Your task to perform on an android device: toggle show notifications on the lock screen Image 0: 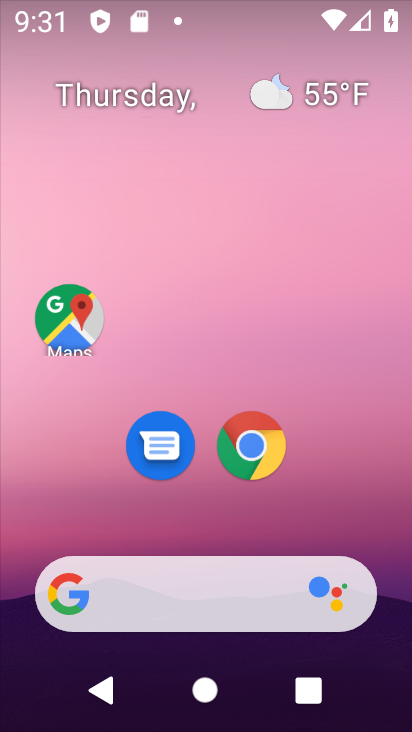
Step 0: drag from (194, 497) to (204, 88)
Your task to perform on an android device: toggle show notifications on the lock screen Image 1: 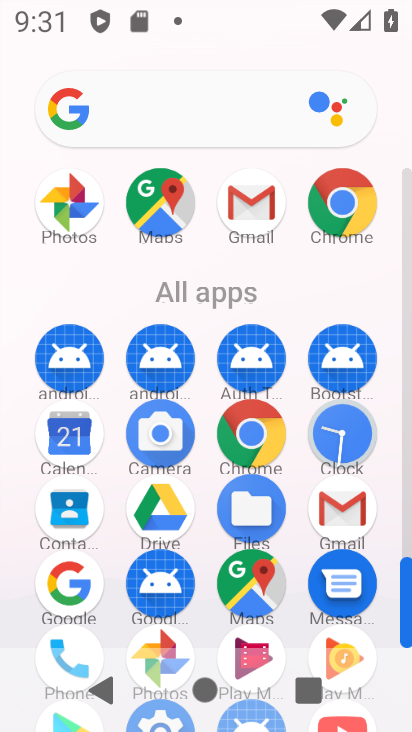
Step 1: drag from (209, 701) to (212, 420)
Your task to perform on an android device: toggle show notifications on the lock screen Image 2: 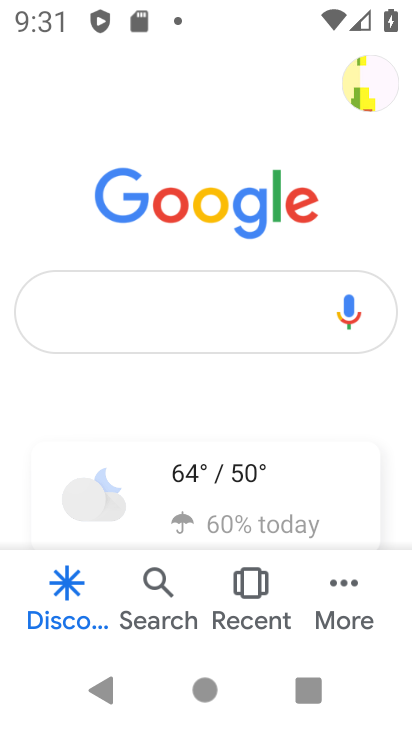
Step 2: click (107, 684)
Your task to perform on an android device: toggle show notifications on the lock screen Image 3: 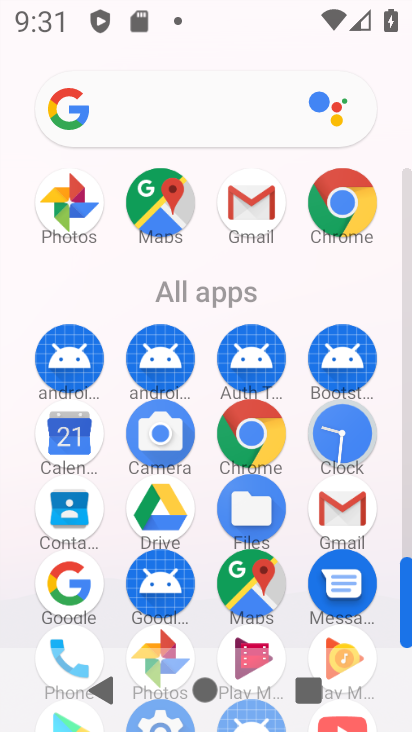
Step 3: drag from (212, 487) to (212, 222)
Your task to perform on an android device: toggle show notifications on the lock screen Image 4: 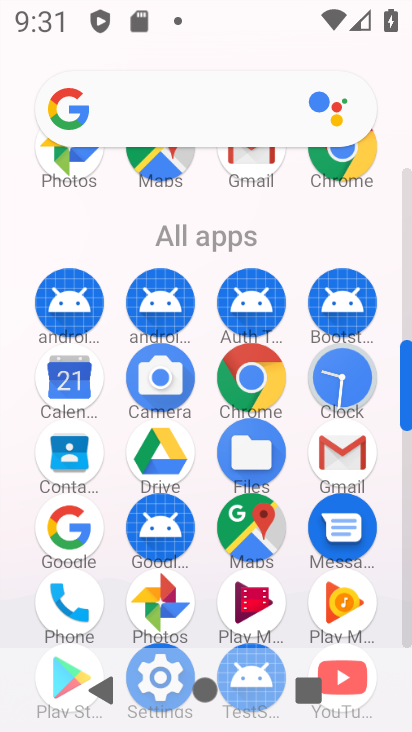
Step 4: drag from (204, 537) to (197, 217)
Your task to perform on an android device: toggle show notifications on the lock screen Image 5: 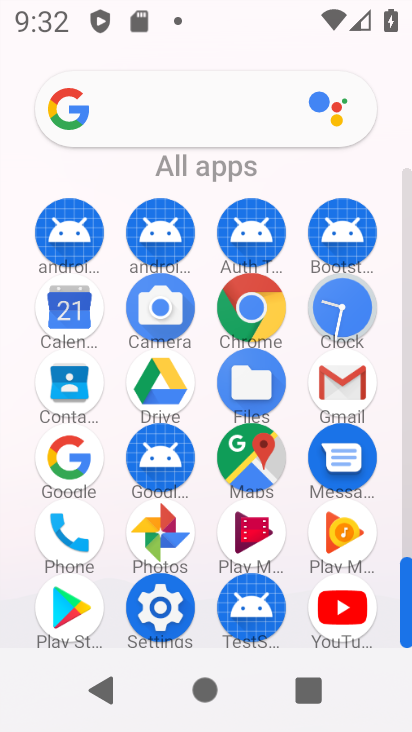
Step 5: click (159, 604)
Your task to perform on an android device: toggle show notifications on the lock screen Image 6: 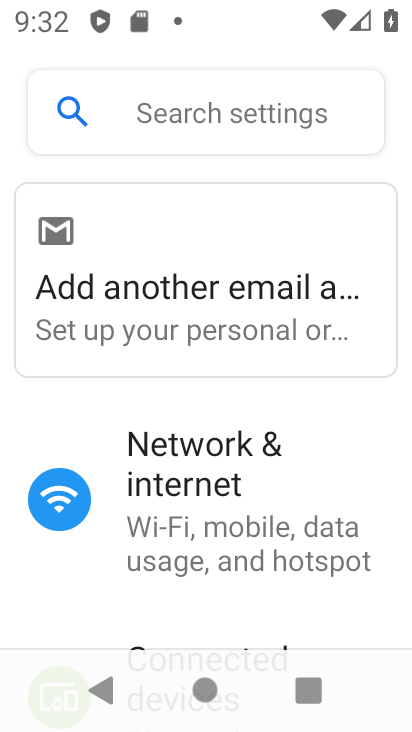
Step 6: drag from (266, 573) to (329, 110)
Your task to perform on an android device: toggle show notifications on the lock screen Image 7: 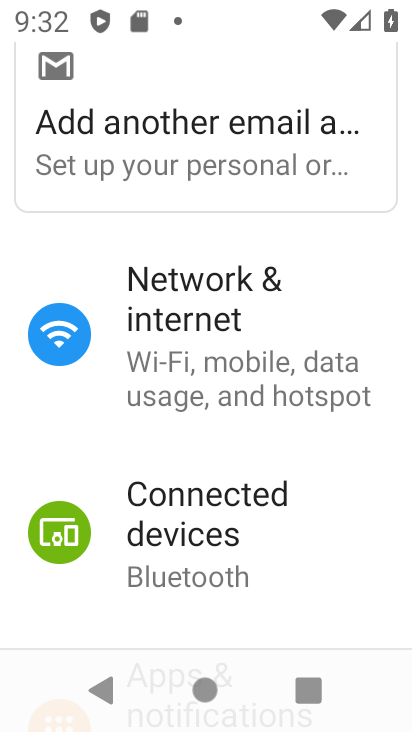
Step 7: drag from (272, 598) to (376, 160)
Your task to perform on an android device: toggle show notifications on the lock screen Image 8: 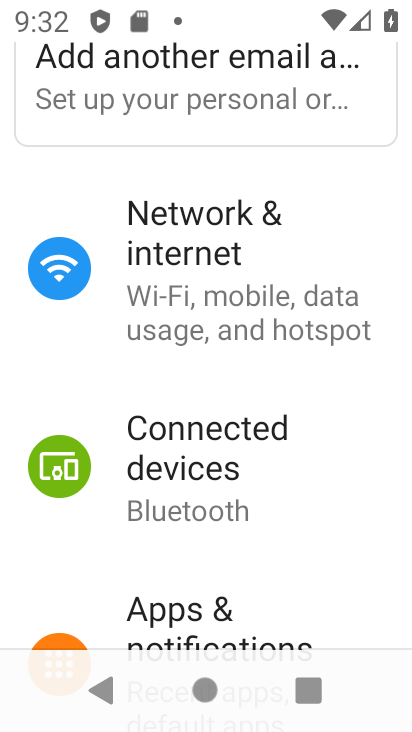
Step 8: drag from (284, 387) to (311, 220)
Your task to perform on an android device: toggle show notifications on the lock screen Image 9: 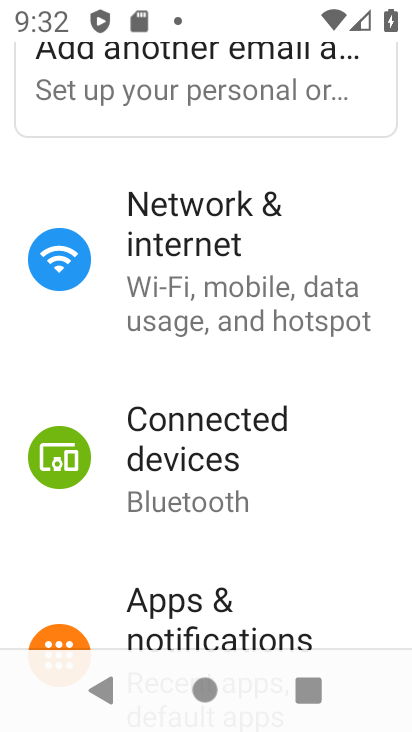
Step 9: click (209, 619)
Your task to perform on an android device: toggle show notifications on the lock screen Image 10: 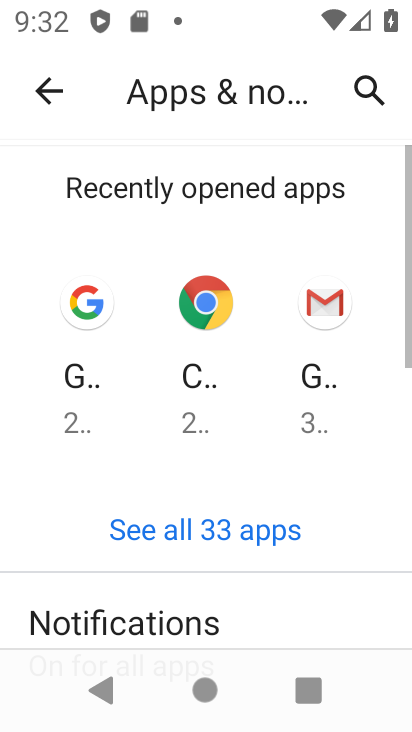
Step 10: drag from (270, 600) to (340, 144)
Your task to perform on an android device: toggle show notifications on the lock screen Image 11: 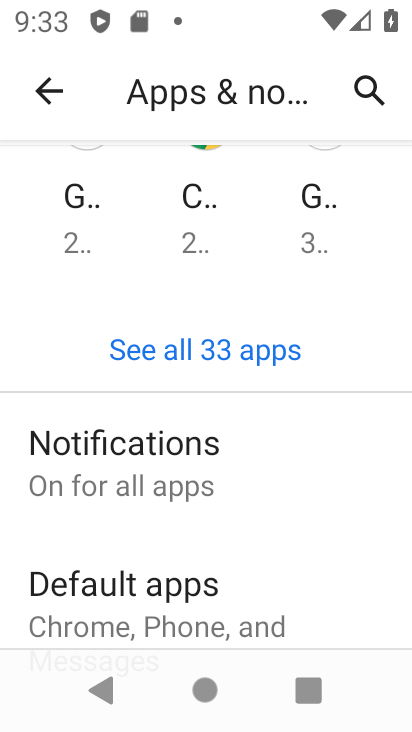
Step 11: drag from (273, 606) to (335, 193)
Your task to perform on an android device: toggle show notifications on the lock screen Image 12: 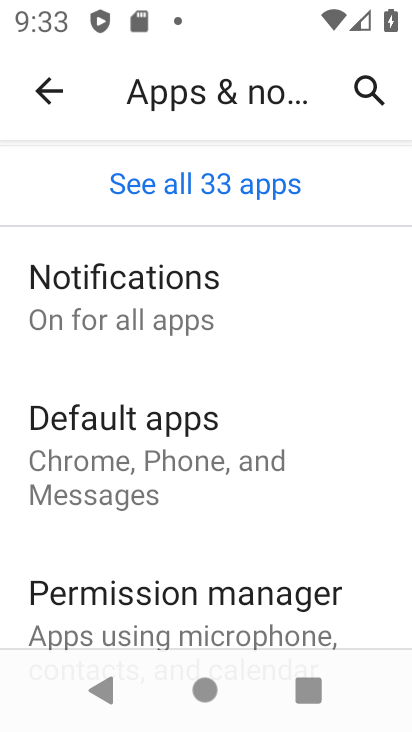
Step 12: drag from (310, 611) to (361, 238)
Your task to perform on an android device: toggle show notifications on the lock screen Image 13: 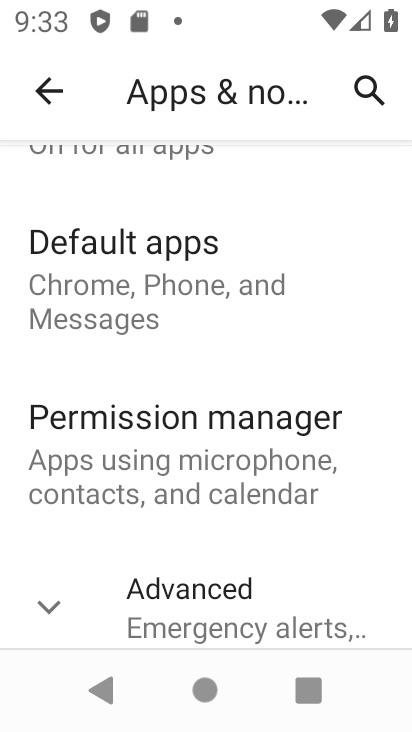
Step 13: click (132, 150)
Your task to perform on an android device: toggle show notifications on the lock screen Image 14: 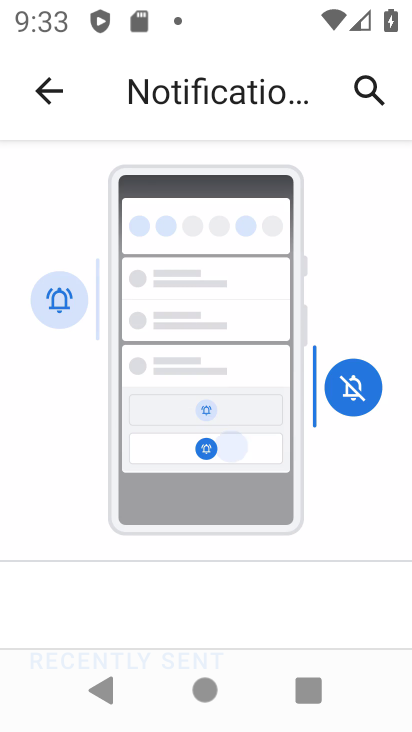
Step 14: drag from (313, 610) to (364, 212)
Your task to perform on an android device: toggle show notifications on the lock screen Image 15: 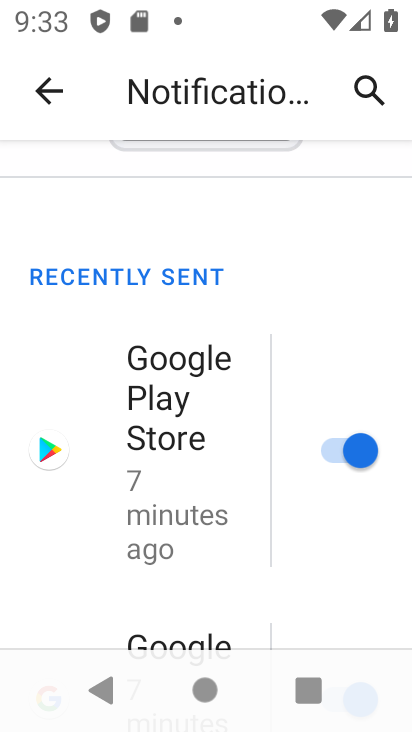
Step 15: drag from (361, 530) to (385, 205)
Your task to perform on an android device: toggle show notifications on the lock screen Image 16: 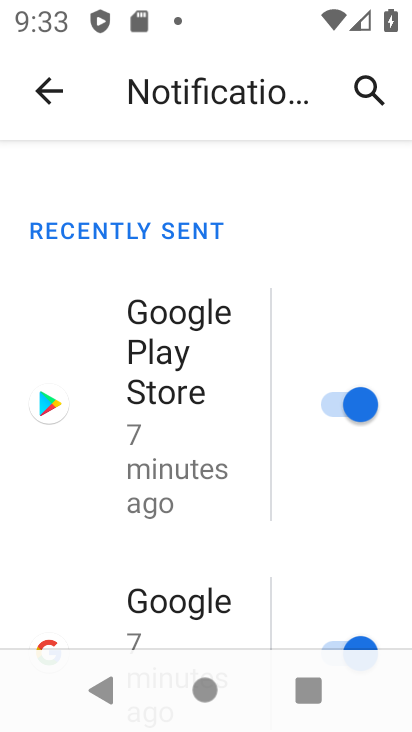
Step 16: drag from (324, 553) to (340, 203)
Your task to perform on an android device: toggle show notifications on the lock screen Image 17: 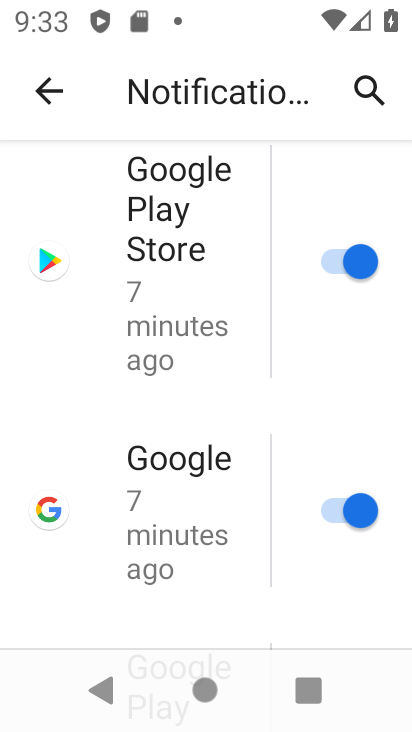
Step 17: drag from (316, 412) to (322, 174)
Your task to perform on an android device: toggle show notifications on the lock screen Image 18: 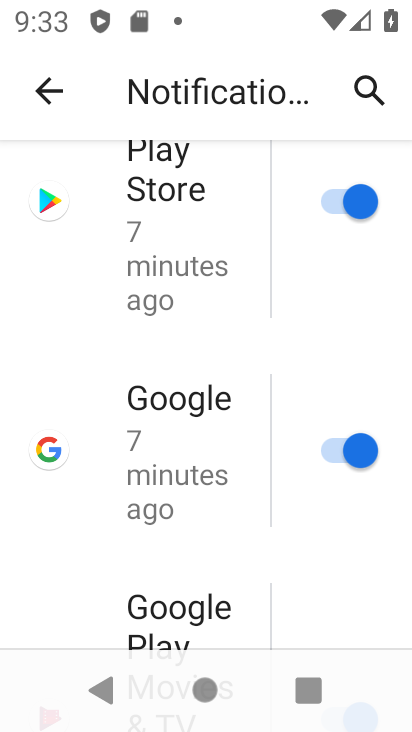
Step 18: drag from (323, 602) to (354, 182)
Your task to perform on an android device: toggle show notifications on the lock screen Image 19: 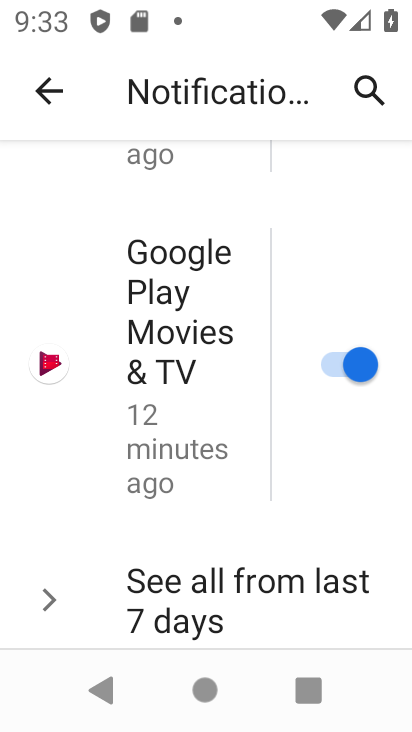
Step 19: drag from (311, 617) to (343, 242)
Your task to perform on an android device: toggle show notifications on the lock screen Image 20: 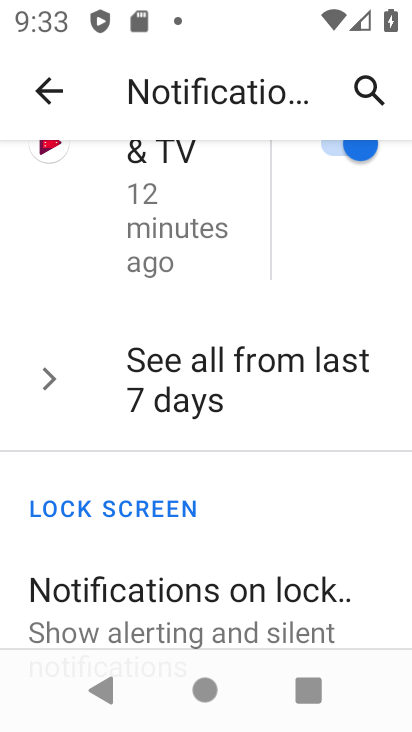
Step 20: click (232, 610)
Your task to perform on an android device: toggle show notifications on the lock screen Image 21: 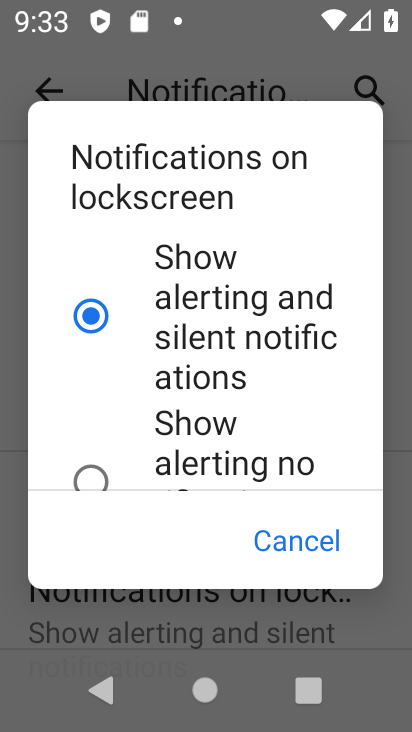
Step 21: drag from (257, 455) to (302, 165)
Your task to perform on an android device: toggle show notifications on the lock screen Image 22: 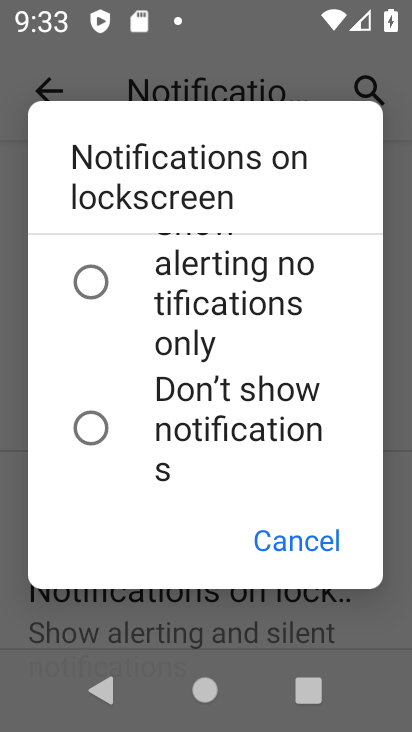
Step 22: click (87, 426)
Your task to perform on an android device: toggle show notifications on the lock screen Image 23: 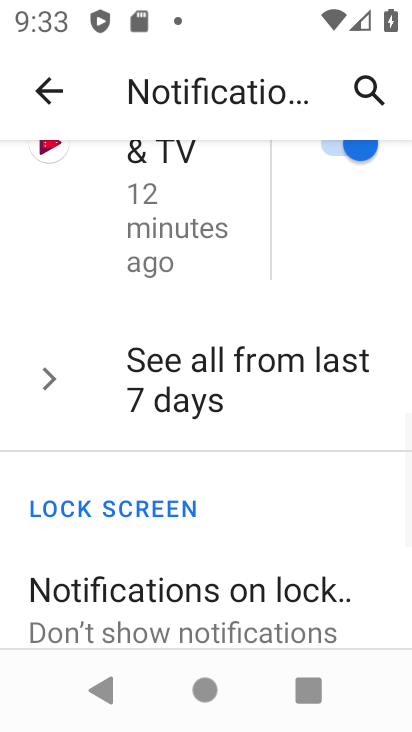
Step 23: task complete